Your task to perform on an android device: Go to wifi settings Image 0: 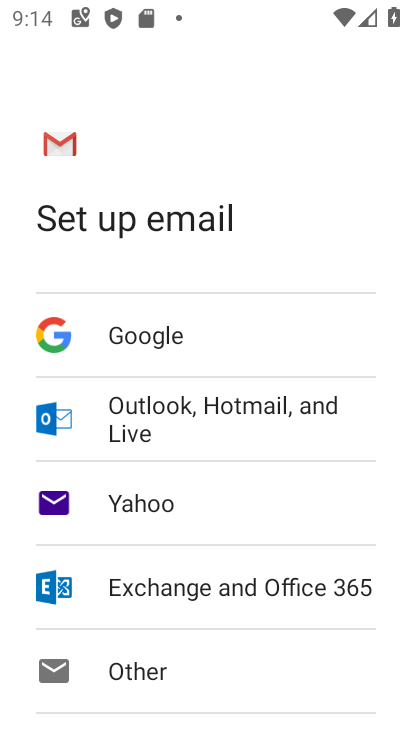
Step 0: press home button
Your task to perform on an android device: Go to wifi settings Image 1: 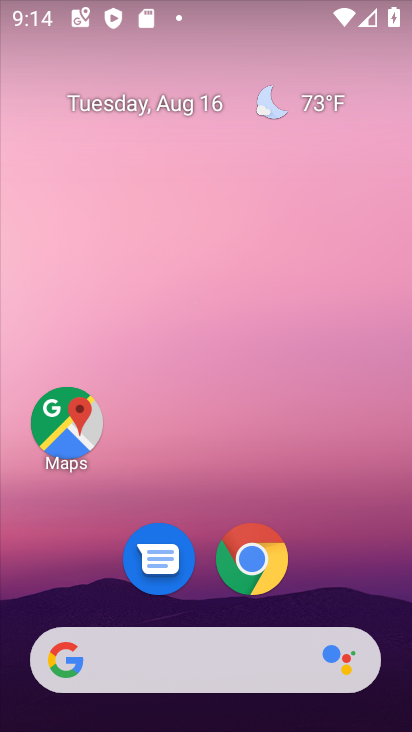
Step 1: drag from (246, 9) to (238, 494)
Your task to perform on an android device: Go to wifi settings Image 2: 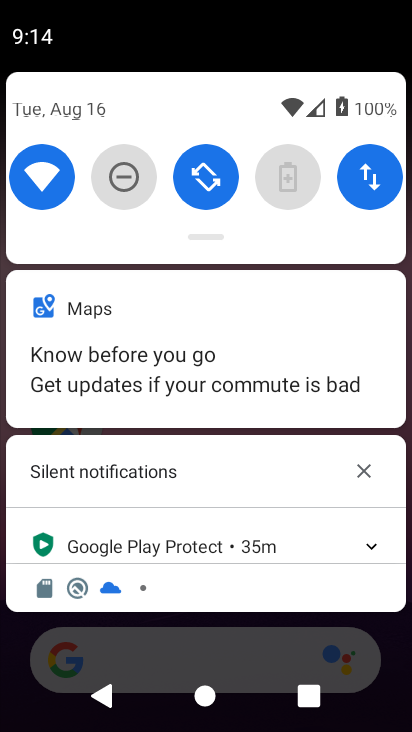
Step 2: click (43, 177)
Your task to perform on an android device: Go to wifi settings Image 3: 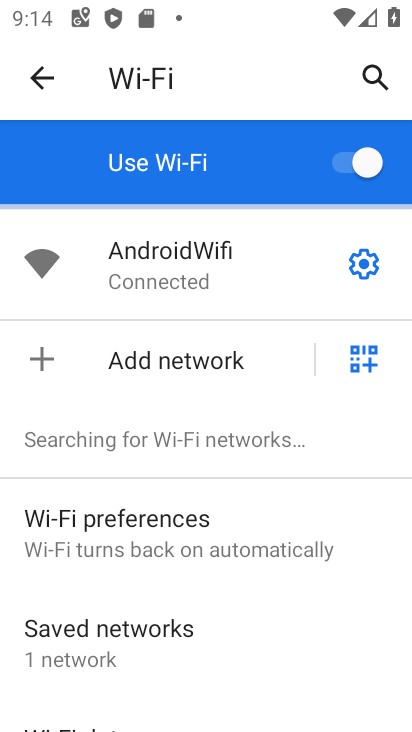
Step 3: task complete